Your task to perform on an android device: Show me productivity apps on the Play Store Image 0: 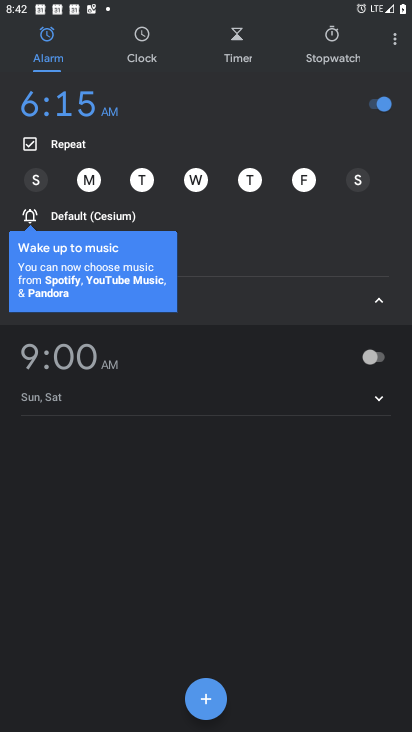
Step 0: press home button
Your task to perform on an android device: Show me productivity apps on the Play Store Image 1: 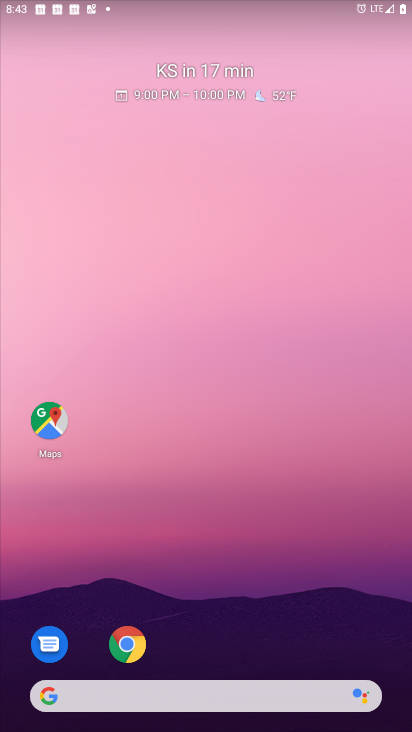
Step 1: drag from (379, 635) to (291, 55)
Your task to perform on an android device: Show me productivity apps on the Play Store Image 2: 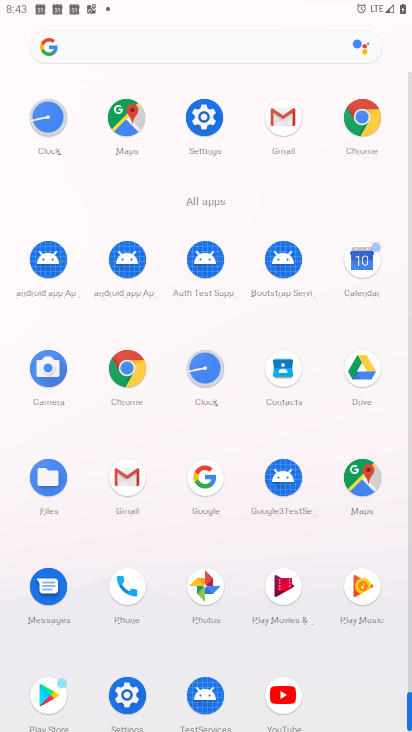
Step 2: click (47, 692)
Your task to perform on an android device: Show me productivity apps on the Play Store Image 3: 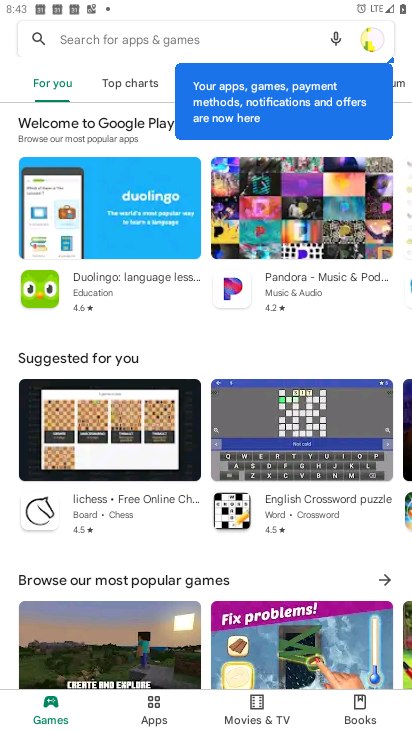
Step 3: click (156, 713)
Your task to perform on an android device: Show me productivity apps on the Play Store Image 4: 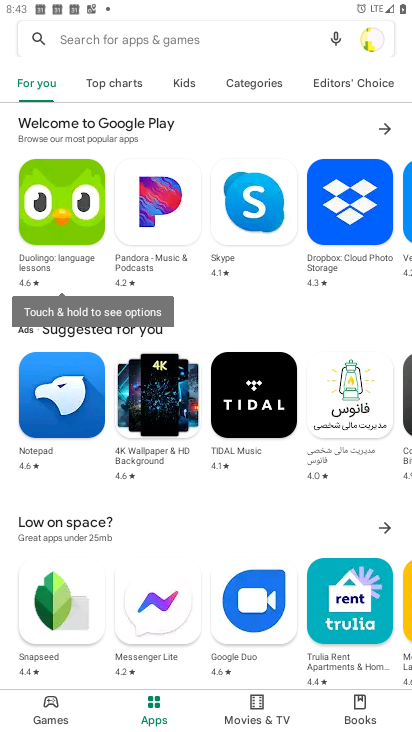
Step 4: click (254, 85)
Your task to perform on an android device: Show me productivity apps on the Play Store Image 5: 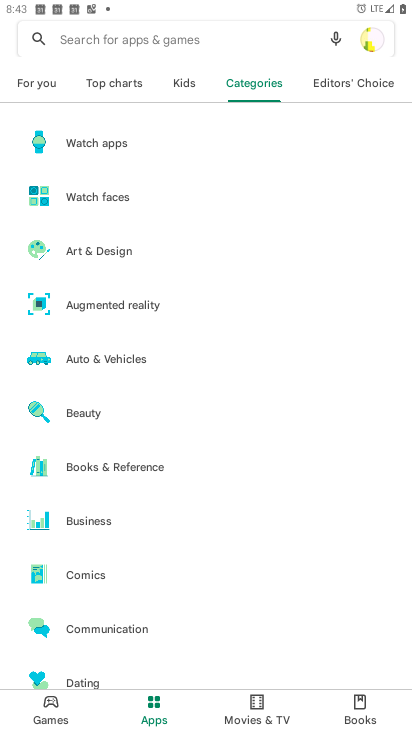
Step 5: drag from (189, 625) to (217, 166)
Your task to perform on an android device: Show me productivity apps on the Play Store Image 6: 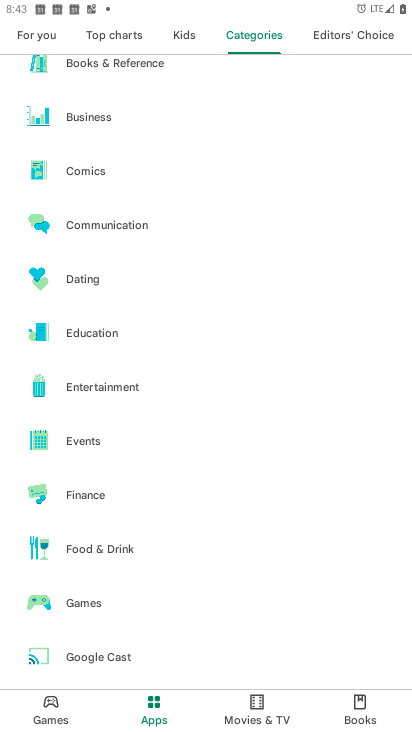
Step 6: drag from (175, 653) to (178, 212)
Your task to perform on an android device: Show me productivity apps on the Play Store Image 7: 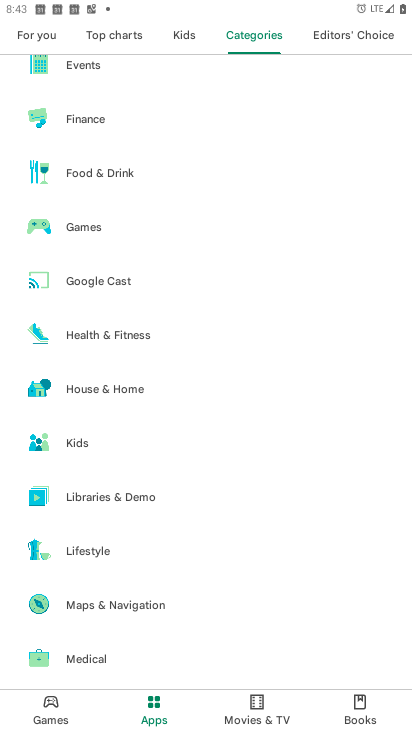
Step 7: drag from (188, 582) to (211, 162)
Your task to perform on an android device: Show me productivity apps on the Play Store Image 8: 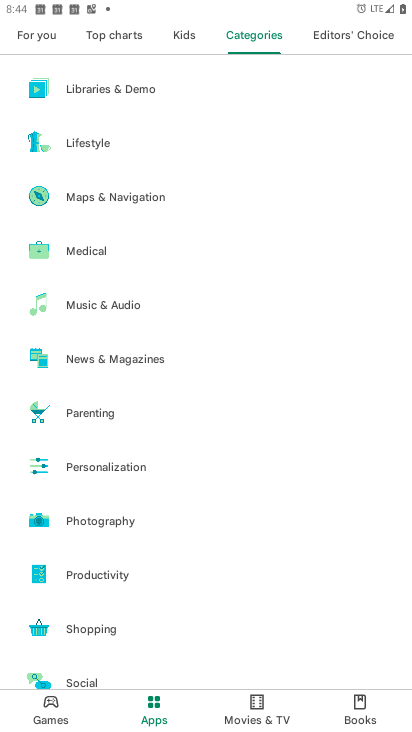
Step 8: click (96, 572)
Your task to perform on an android device: Show me productivity apps on the Play Store Image 9: 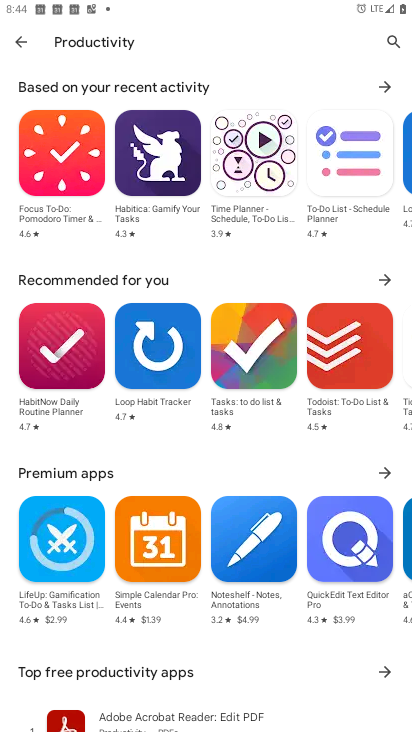
Step 9: task complete